Your task to perform on an android device: check data usage Image 0: 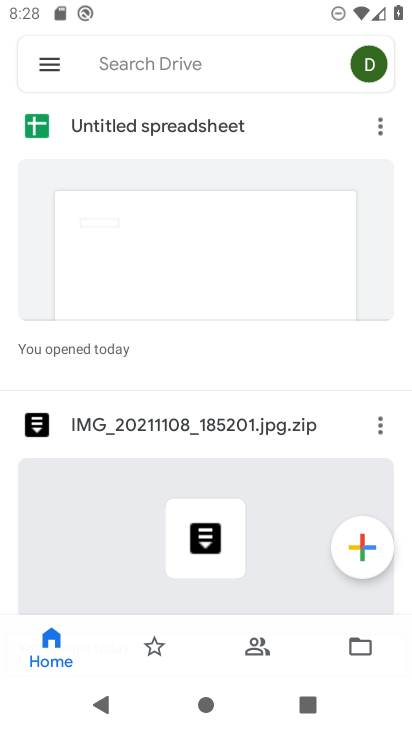
Step 0: press home button
Your task to perform on an android device: check data usage Image 1: 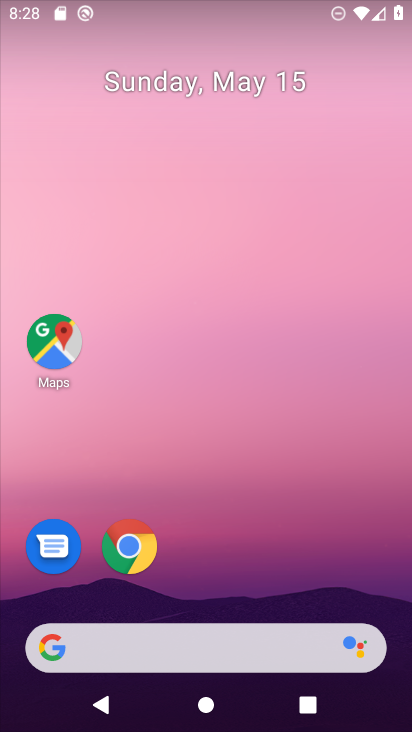
Step 1: drag from (264, 521) to (224, 24)
Your task to perform on an android device: check data usage Image 2: 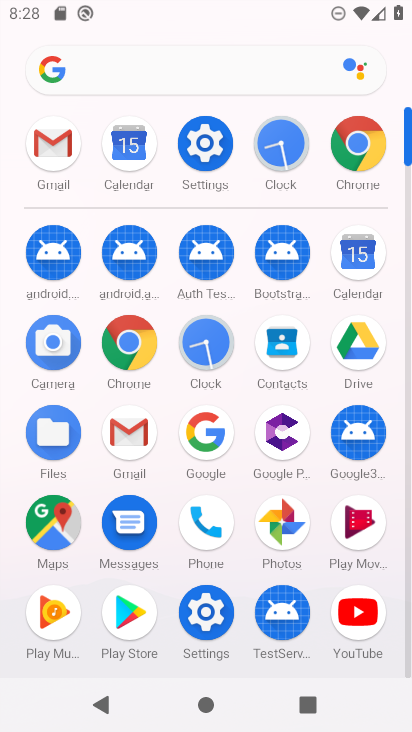
Step 2: click (213, 138)
Your task to perform on an android device: check data usage Image 3: 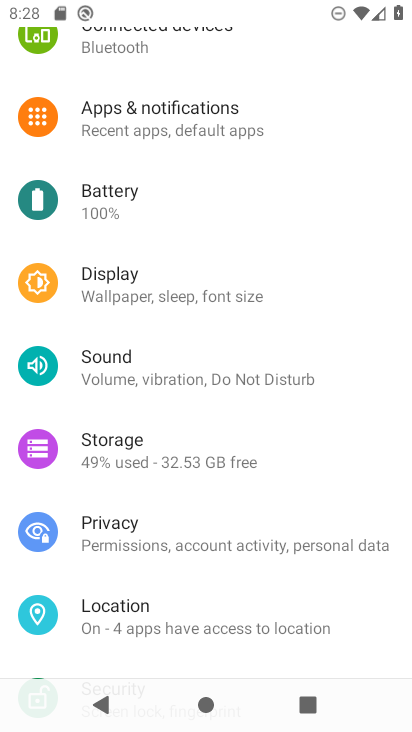
Step 3: drag from (226, 191) to (254, 400)
Your task to perform on an android device: check data usage Image 4: 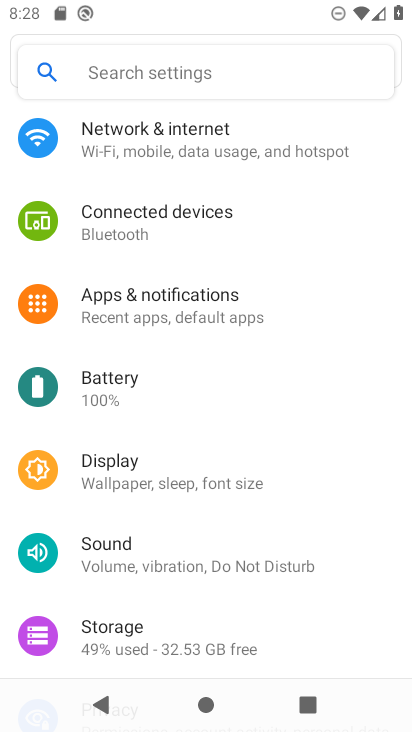
Step 4: click (246, 142)
Your task to perform on an android device: check data usage Image 5: 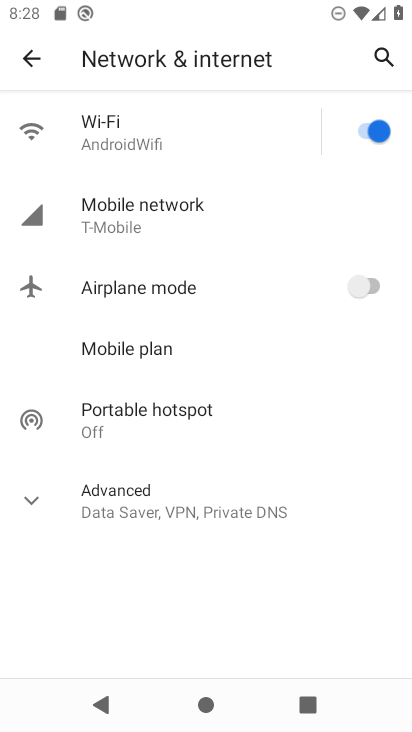
Step 5: click (250, 212)
Your task to perform on an android device: check data usage Image 6: 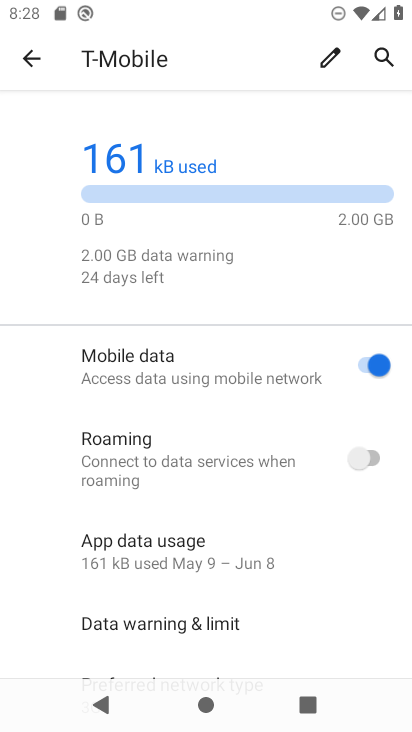
Step 6: task complete